Your task to perform on an android device: Toggle the flashlight Image 0: 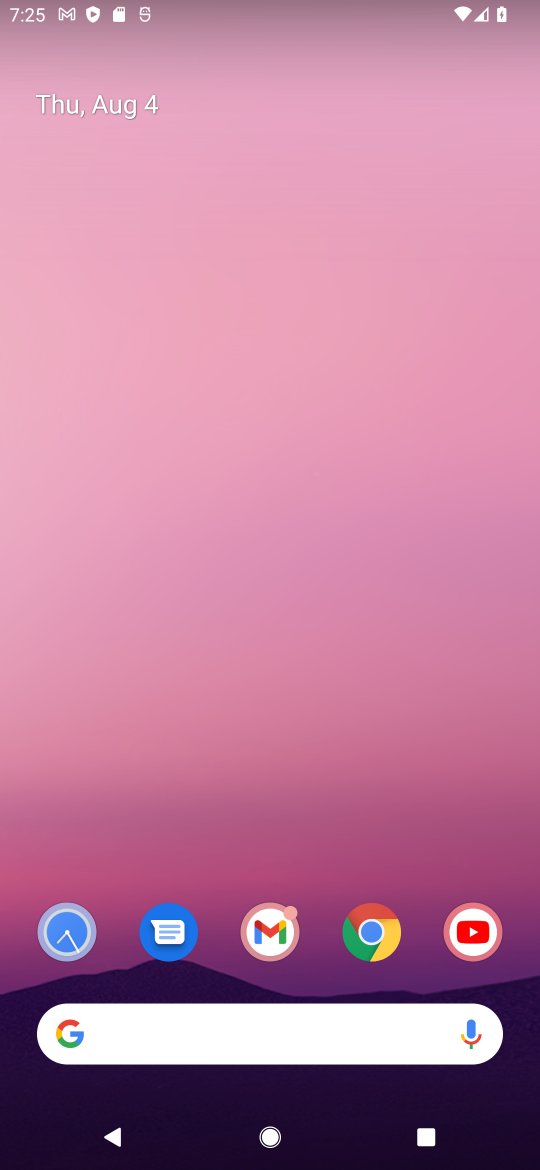
Step 0: drag from (391, 1008) to (375, 134)
Your task to perform on an android device: Toggle the flashlight Image 1: 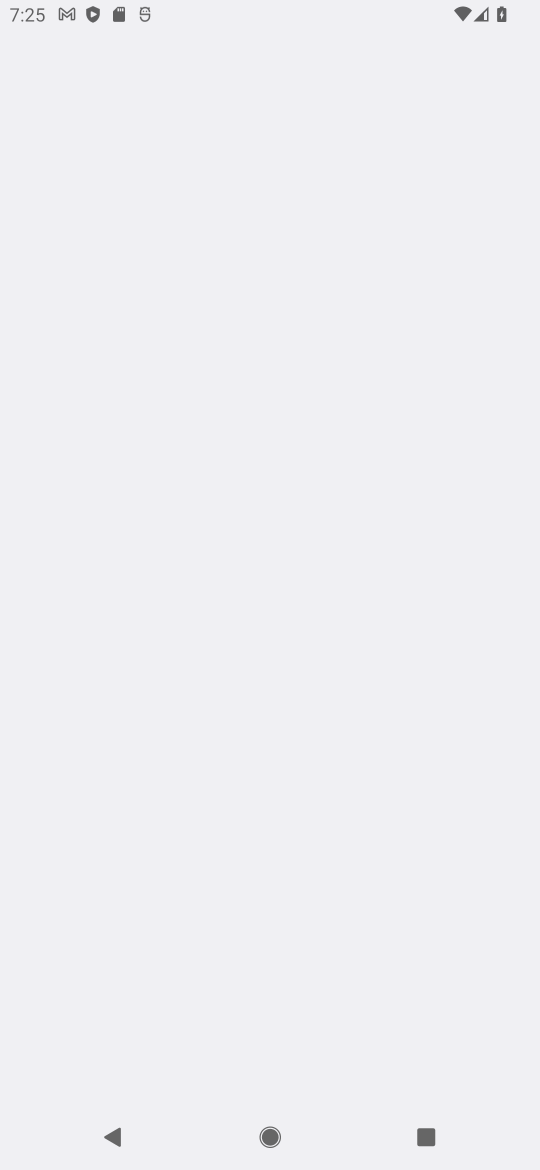
Step 1: task complete